Your task to perform on an android device: What's on my calendar tomorrow? Image 0: 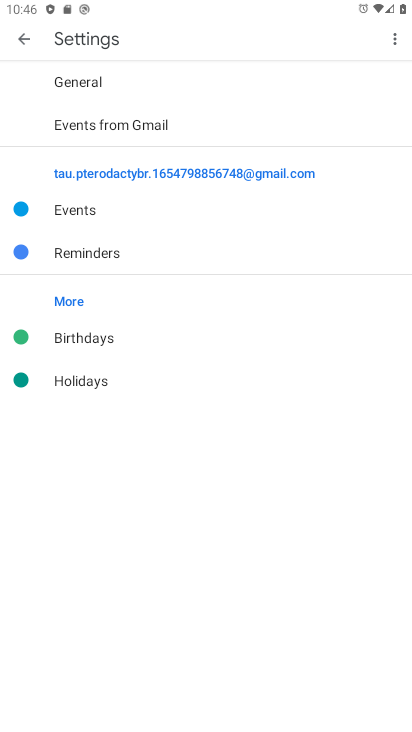
Step 0: press home button
Your task to perform on an android device: What's on my calendar tomorrow? Image 1: 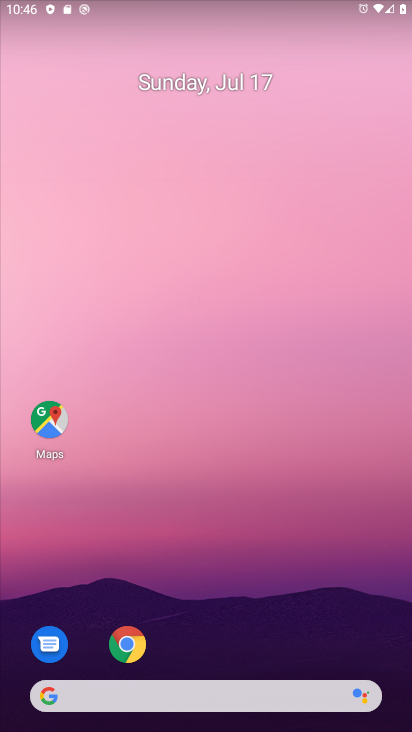
Step 1: drag from (360, 642) to (411, 138)
Your task to perform on an android device: What's on my calendar tomorrow? Image 2: 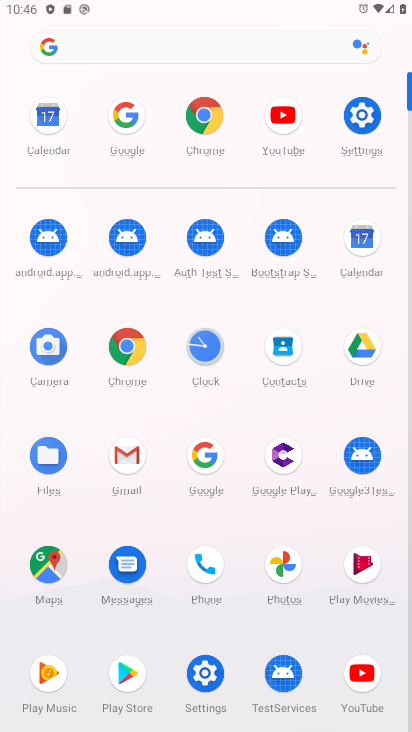
Step 2: click (43, 120)
Your task to perform on an android device: What's on my calendar tomorrow? Image 3: 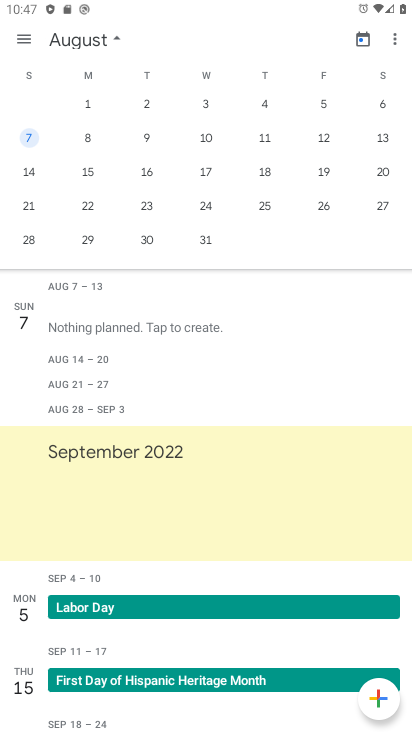
Step 3: click (85, 141)
Your task to perform on an android device: What's on my calendar tomorrow? Image 4: 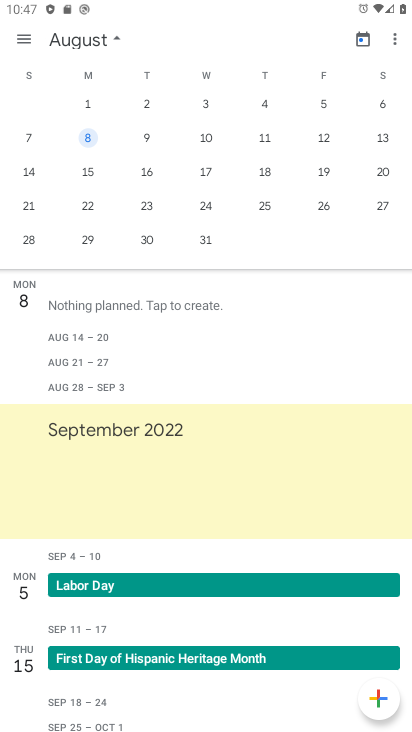
Step 4: task complete